Your task to perform on an android device: show emergency info Image 0: 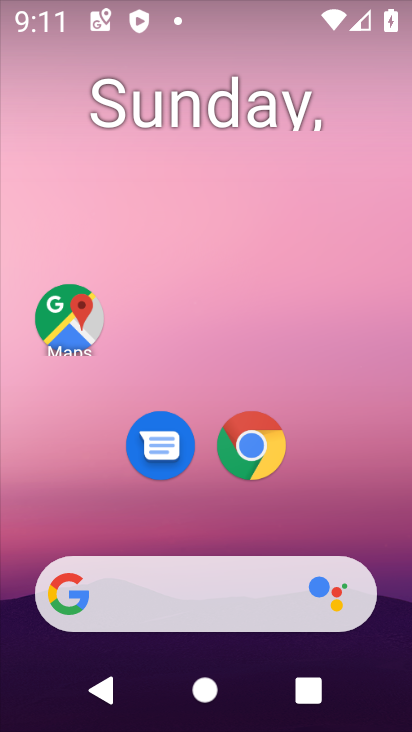
Step 0: drag from (390, 599) to (336, 130)
Your task to perform on an android device: show emergency info Image 1: 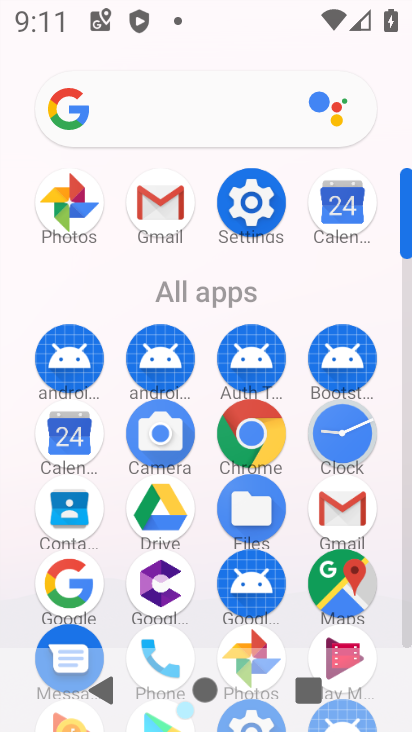
Step 1: click (405, 635)
Your task to perform on an android device: show emergency info Image 2: 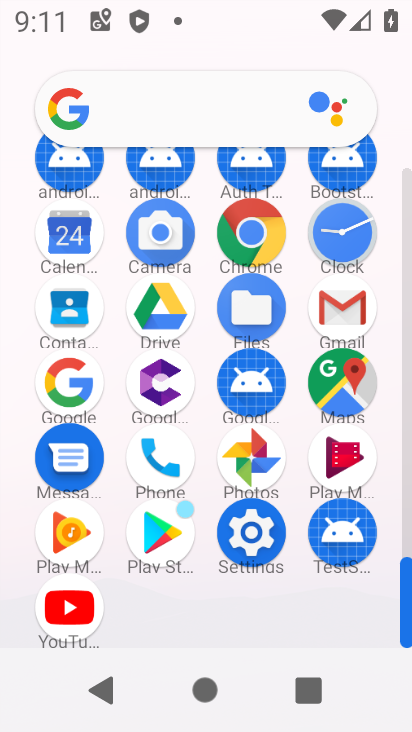
Step 2: click (249, 533)
Your task to perform on an android device: show emergency info Image 3: 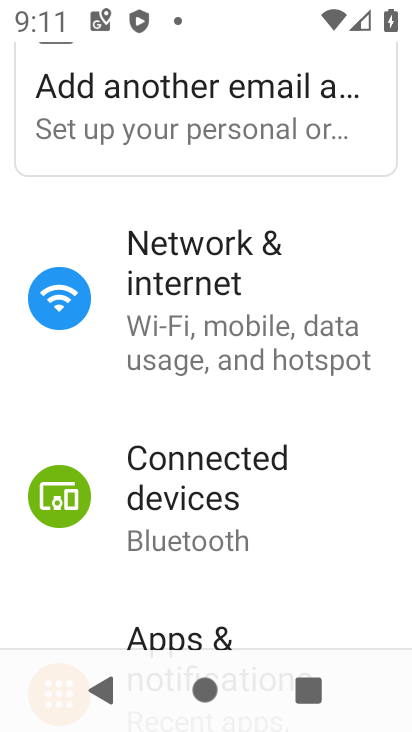
Step 3: drag from (311, 593) to (376, 269)
Your task to perform on an android device: show emergency info Image 4: 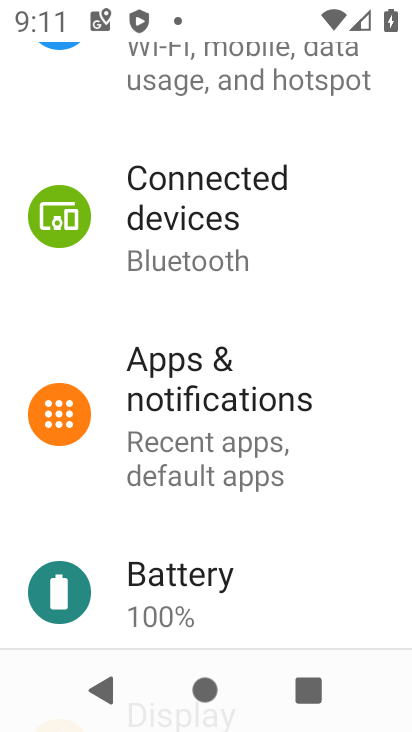
Step 4: drag from (322, 587) to (359, 241)
Your task to perform on an android device: show emergency info Image 5: 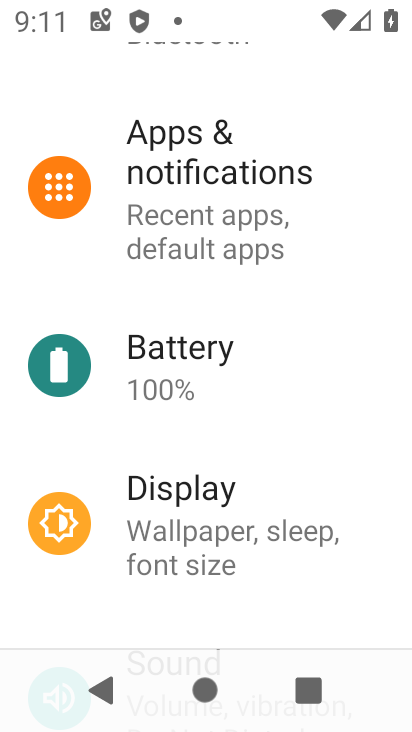
Step 5: drag from (343, 552) to (360, 139)
Your task to perform on an android device: show emergency info Image 6: 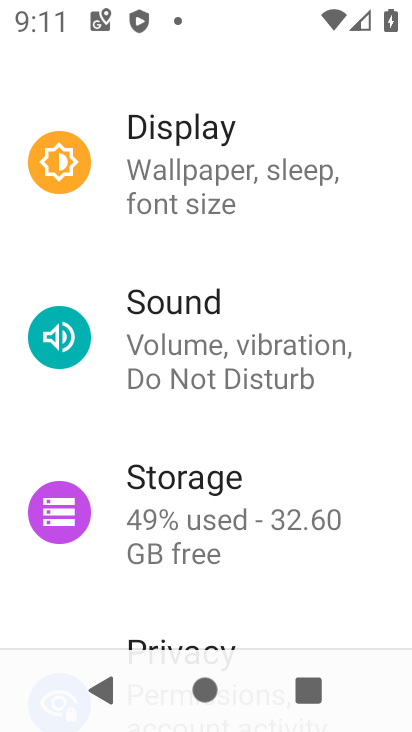
Step 6: drag from (366, 517) to (352, 104)
Your task to perform on an android device: show emergency info Image 7: 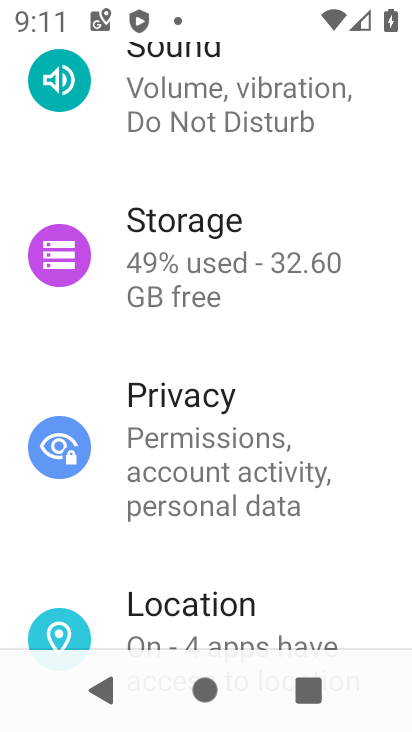
Step 7: drag from (354, 546) to (344, 57)
Your task to perform on an android device: show emergency info Image 8: 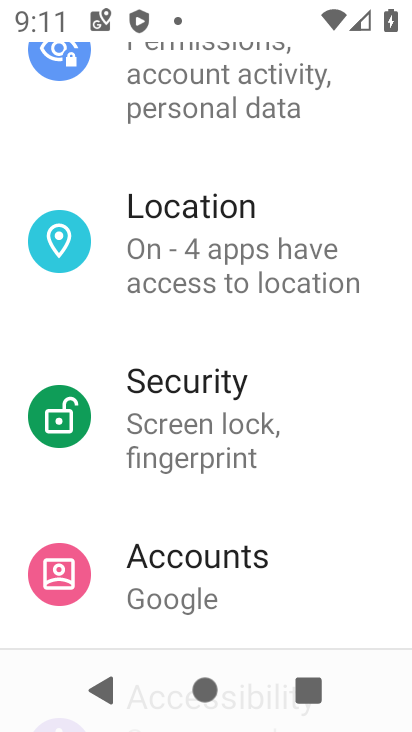
Step 8: drag from (328, 563) to (360, 141)
Your task to perform on an android device: show emergency info Image 9: 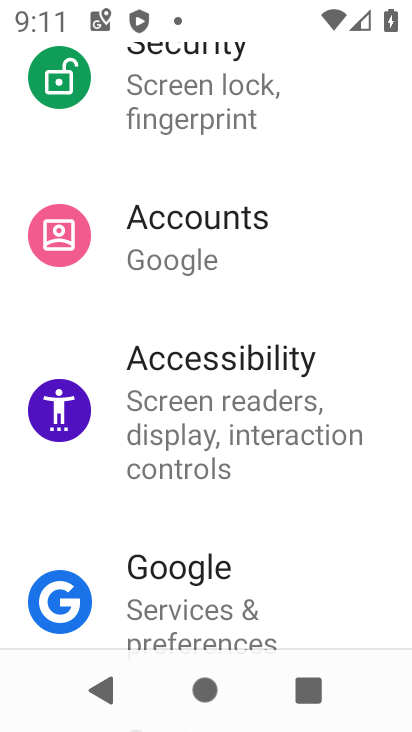
Step 9: drag from (337, 547) to (338, 328)
Your task to perform on an android device: show emergency info Image 10: 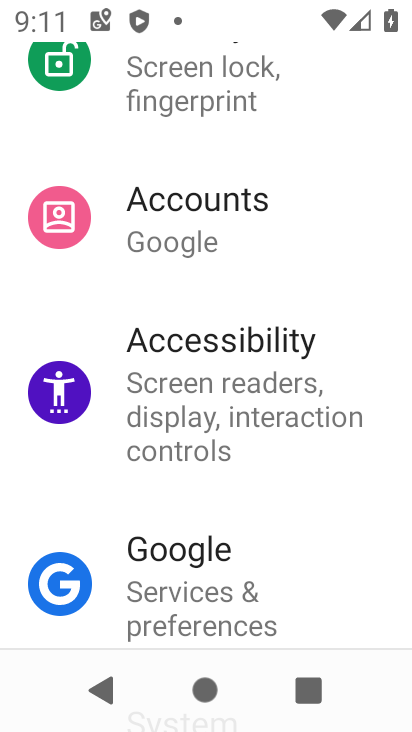
Step 10: drag from (319, 625) to (368, 79)
Your task to perform on an android device: show emergency info Image 11: 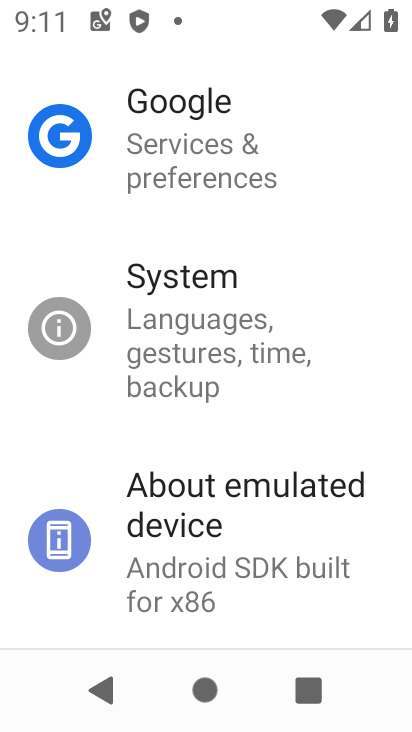
Step 11: click (170, 519)
Your task to perform on an android device: show emergency info Image 12: 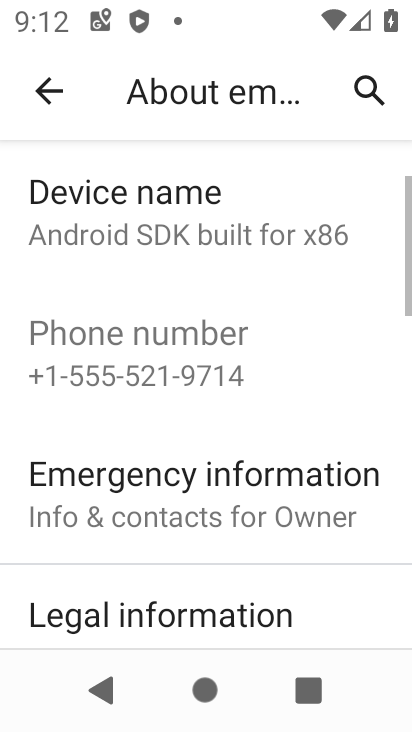
Step 12: click (122, 484)
Your task to perform on an android device: show emergency info Image 13: 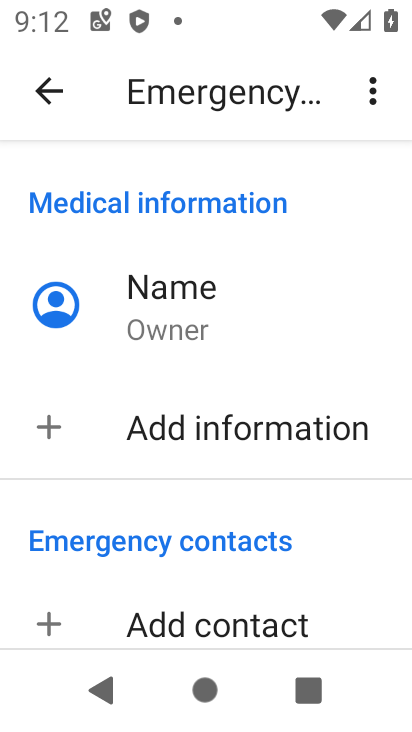
Step 13: task complete